Your task to perform on an android device: open app "Chime – Mobile Banking" Image 0: 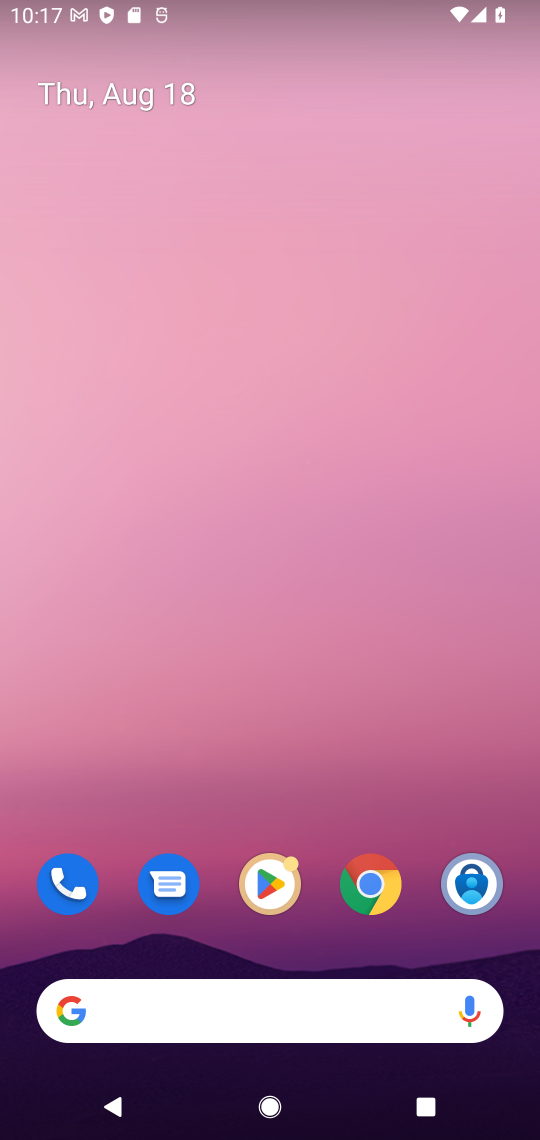
Step 0: drag from (225, 981) to (326, 72)
Your task to perform on an android device: open app "Chime – Mobile Banking" Image 1: 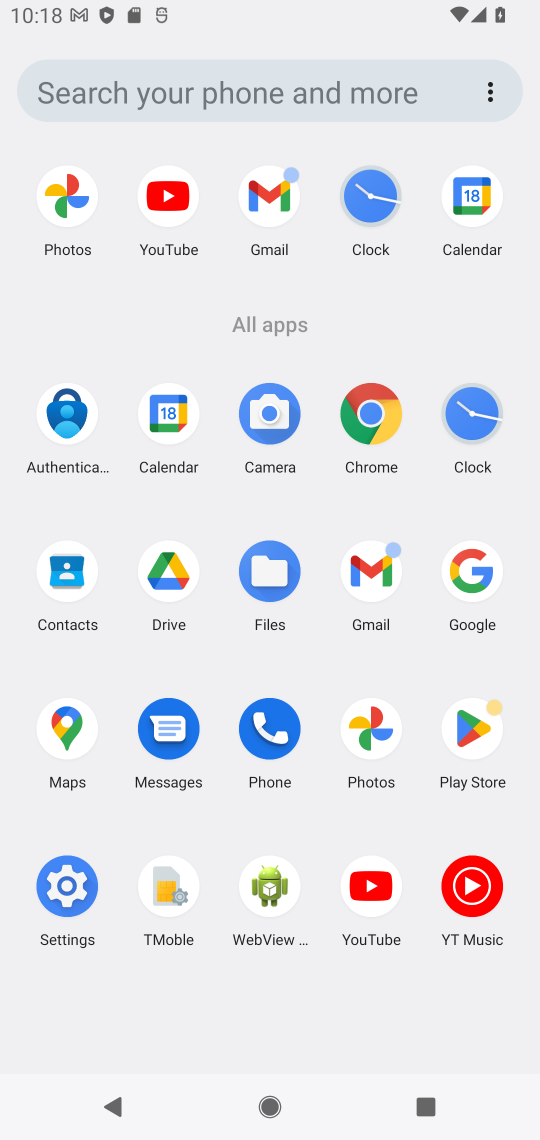
Step 1: click (476, 725)
Your task to perform on an android device: open app "Chime – Mobile Banking" Image 2: 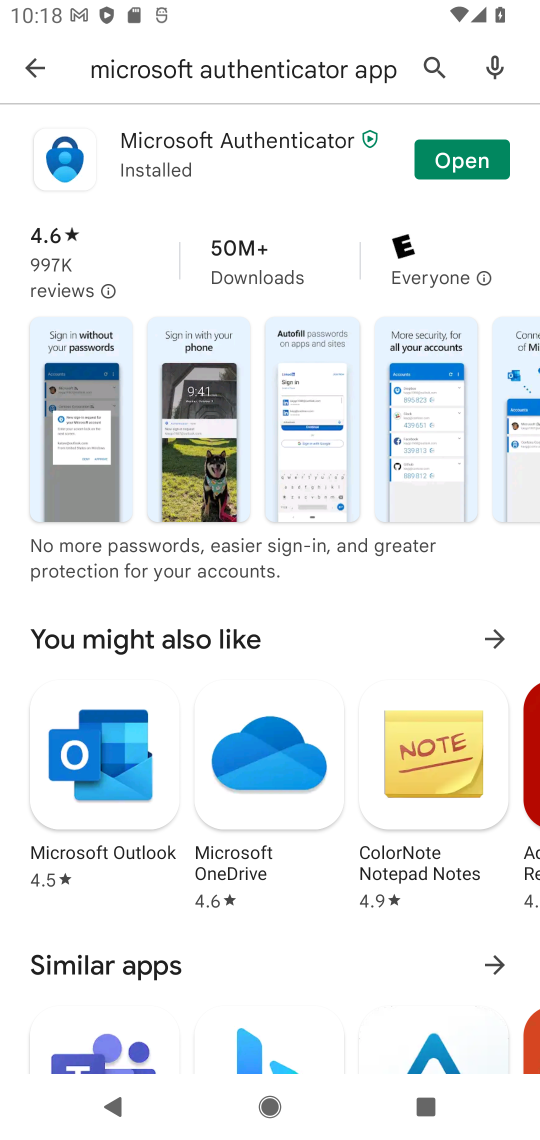
Step 2: press back button
Your task to perform on an android device: open app "Chime – Mobile Banking" Image 3: 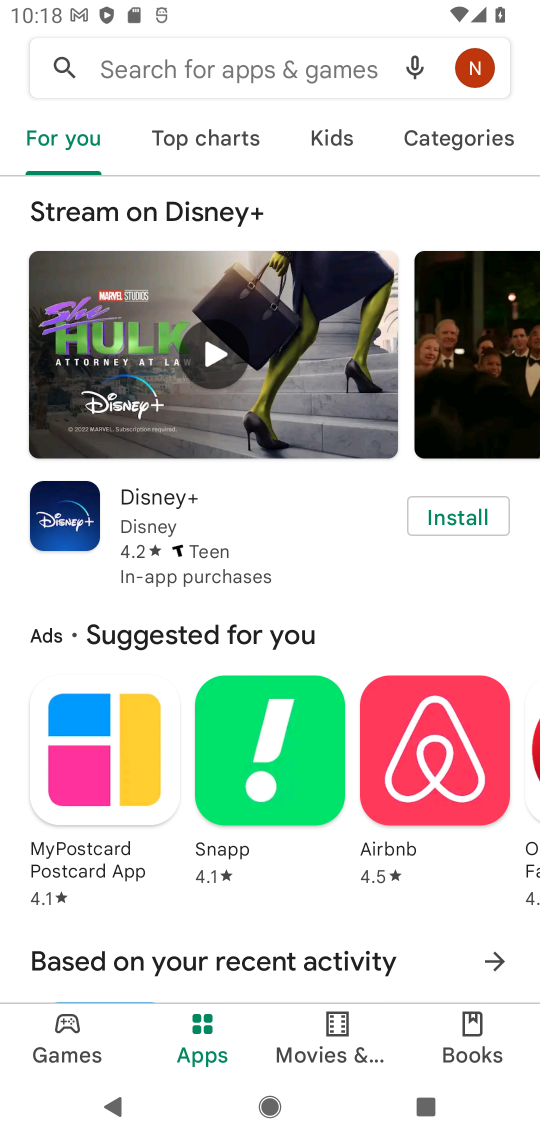
Step 3: click (345, 80)
Your task to perform on an android device: open app "Chime – Mobile Banking" Image 4: 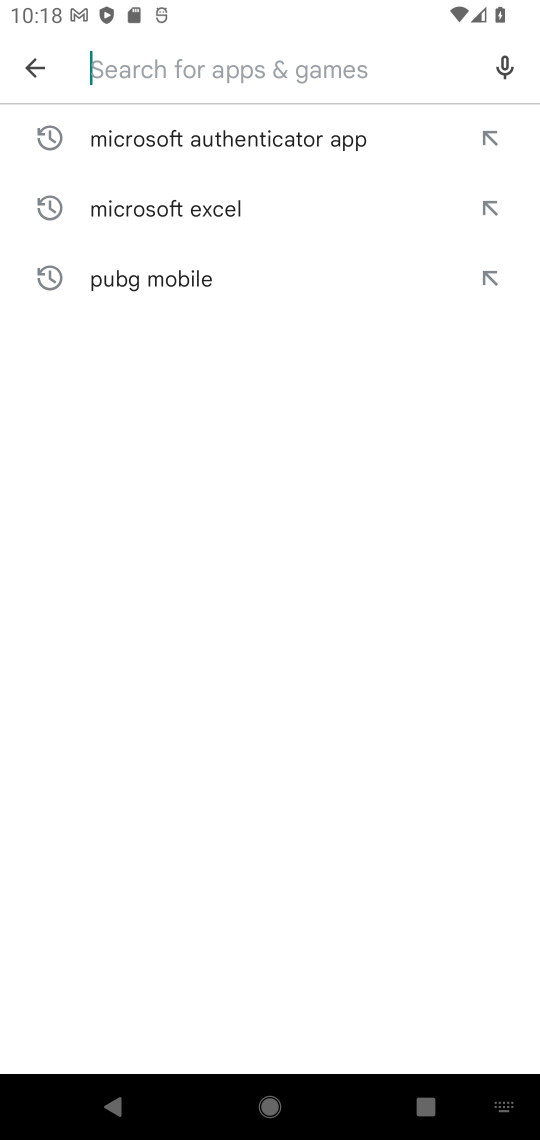
Step 4: type "Chime - Mobile Banking"
Your task to perform on an android device: open app "Chime – Mobile Banking" Image 5: 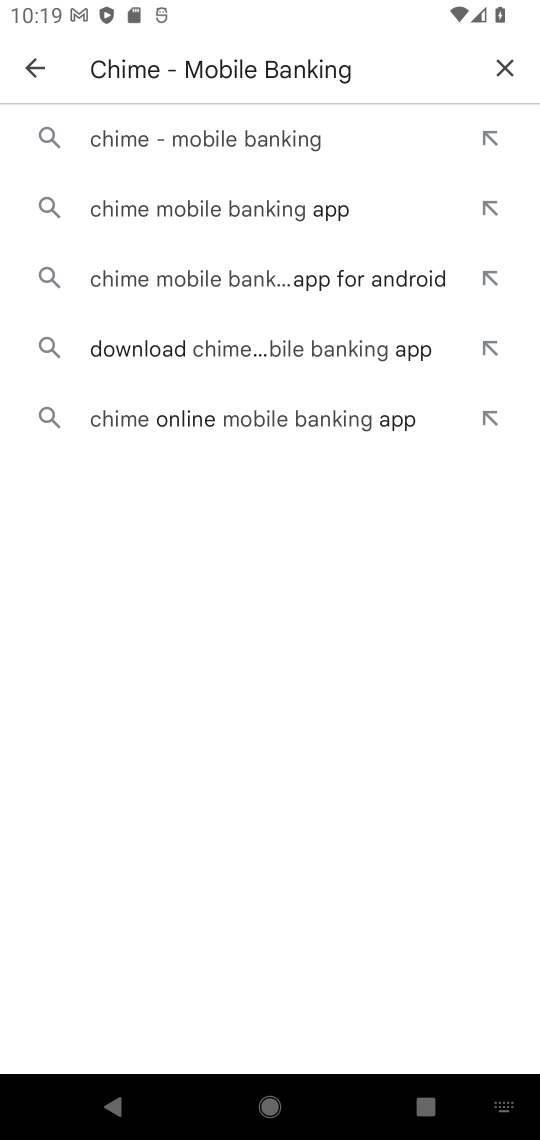
Step 5: click (249, 142)
Your task to perform on an android device: open app "Chime – Mobile Banking" Image 6: 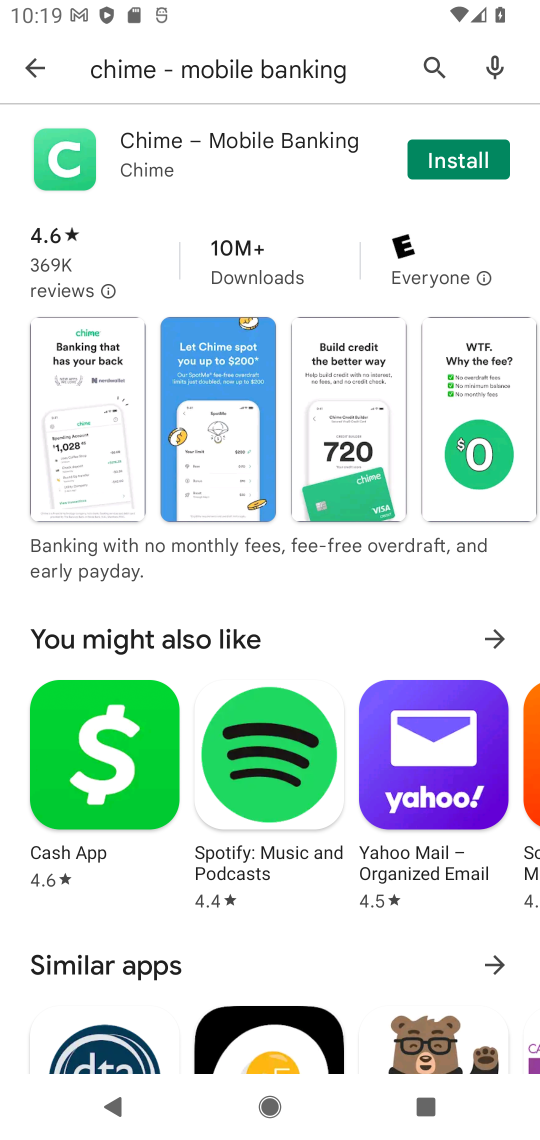
Step 6: task complete